Your task to perform on an android device: toggle improve location accuracy Image 0: 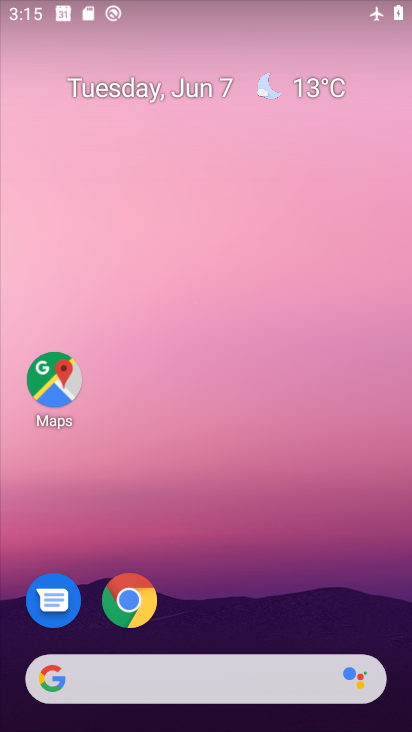
Step 0: drag from (319, 523) to (306, 153)
Your task to perform on an android device: toggle improve location accuracy Image 1: 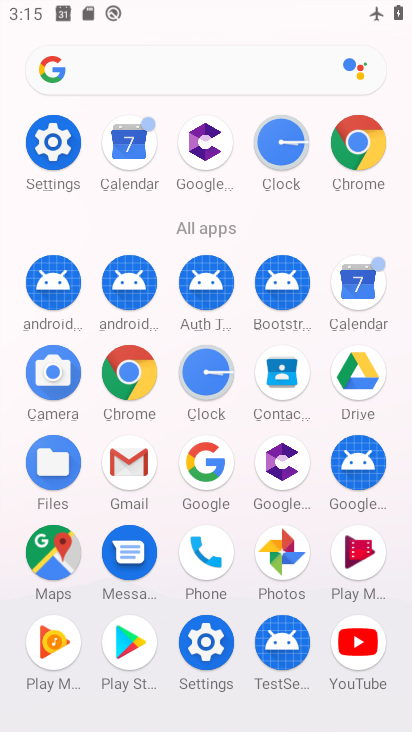
Step 1: click (51, 143)
Your task to perform on an android device: toggle improve location accuracy Image 2: 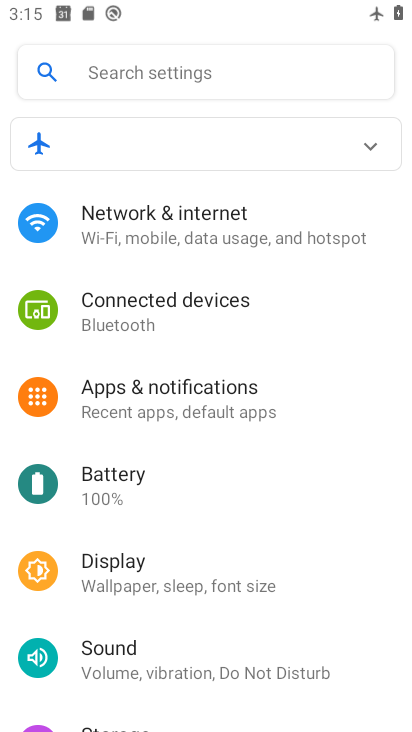
Step 2: drag from (228, 249) to (238, 126)
Your task to perform on an android device: toggle improve location accuracy Image 3: 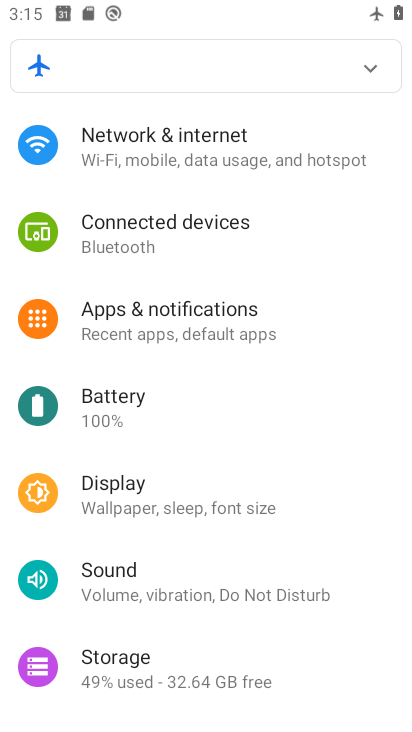
Step 3: drag from (187, 559) to (291, 170)
Your task to perform on an android device: toggle improve location accuracy Image 4: 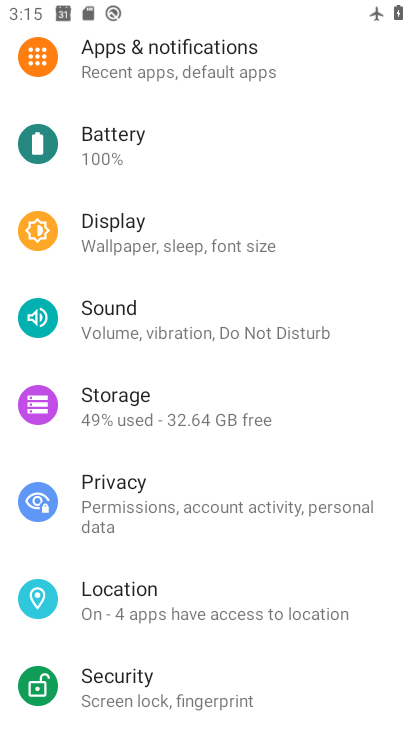
Step 4: click (168, 593)
Your task to perform on an android device: toggle improve location accuracy Image 5: 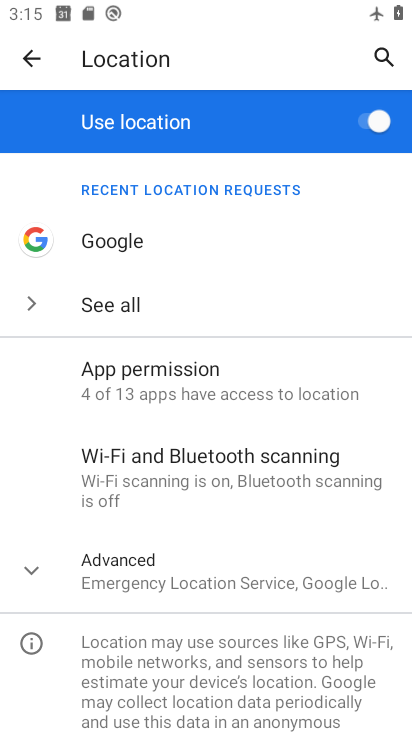
Step 5: click (172, 577)
Your task to perform on an android device: toggle improve location accuracy Image 6: 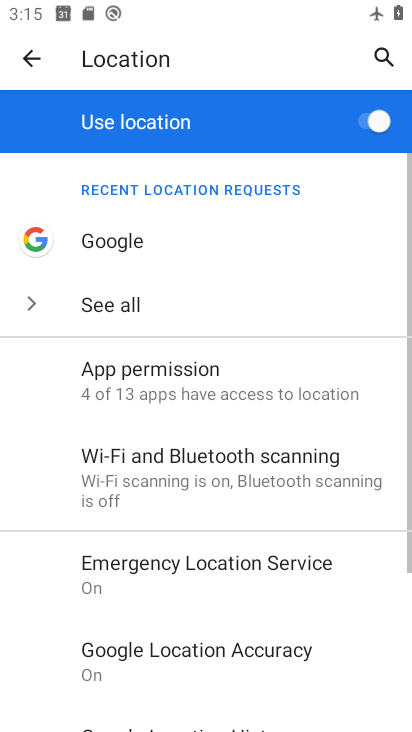
Step 6: drag from (334, 646) to (302, 261)
Your task to perform on an android device: toggle improve location accuracy Image 7: 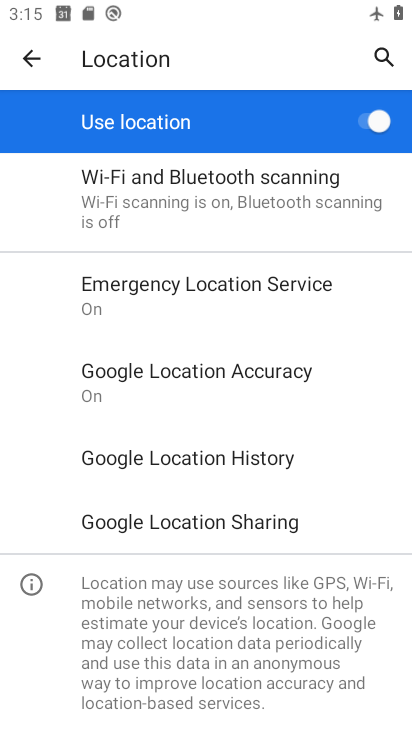
Step 7: click (274, 376)
Your task to perform on an android device: toggle improve location accuracy Image 8: 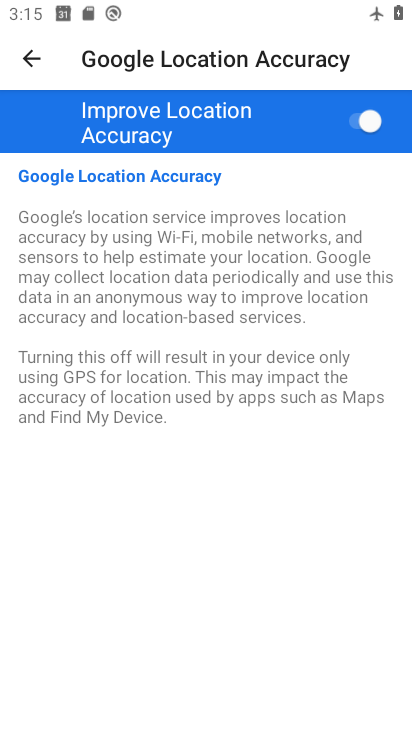
Step 8: click (353, 117)
Your task to perform on an android device: toggle improve location accuracy Image 9: 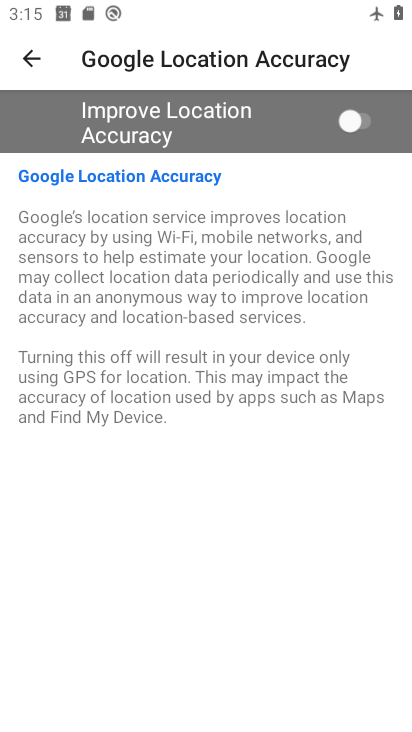
Step 9: task complete